Your task to perform on an android device: toggle wifi Image 0: 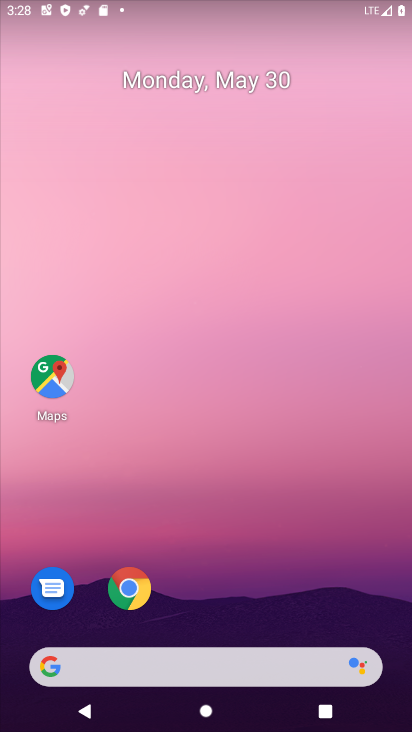
Step 0: drag from (243, 487) to (228, 9)
Your task to perform on an android device: toggle wifi Image 1: 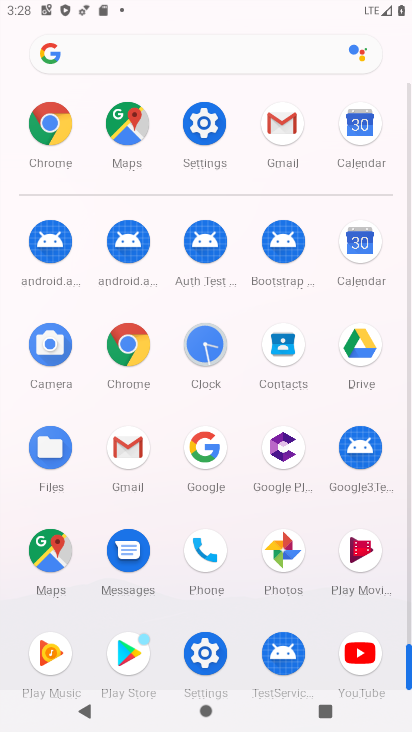
Step 1: drag from (12, 548) to (10, 226)
Your task to perform on an android device: toggle wifi Image 2: 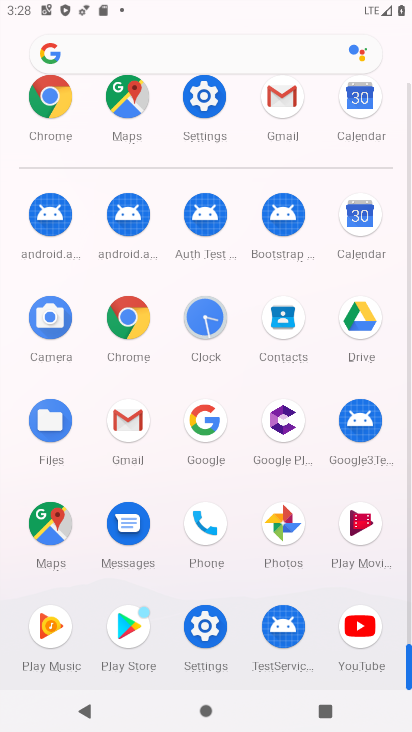
Step 2: click (205, 625)
Your task to perform on an android device: toggle wifi Image 3: 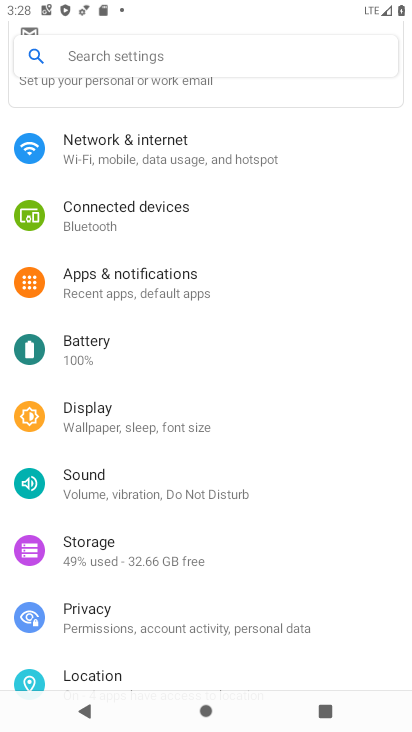
Step 3: drag from (295, 137) to (298, 462)
Your task to perform on an android device: toggle wifi Image 4: 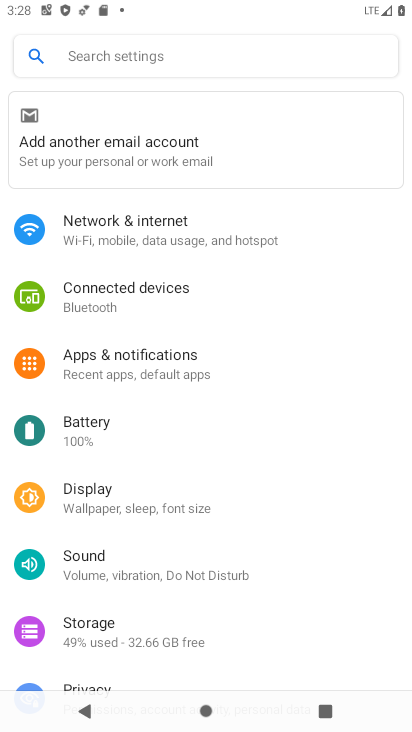
Step 4: click (173, 230)
Your task to perform on an android device: toggle wifi Image 5: 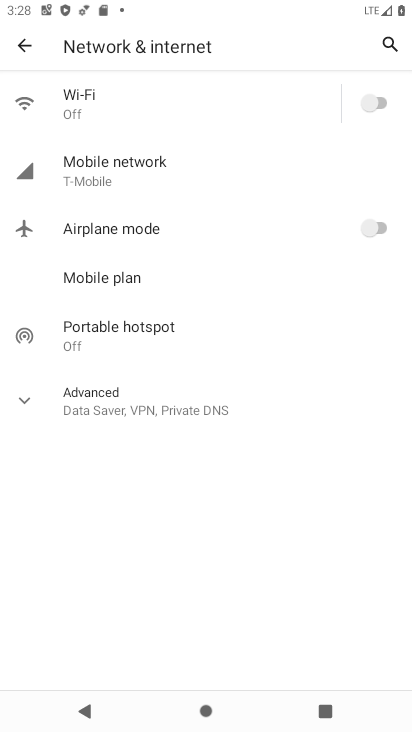
Step 5: click (369, 107)
Your task to perform on an android device: toggle wifi Image 6: 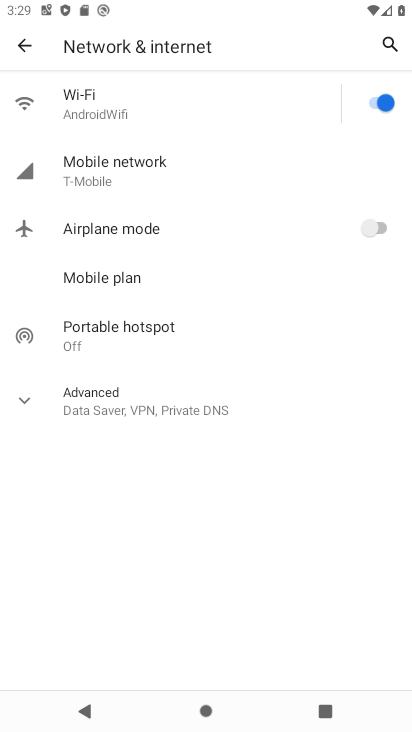
Step 6: click (23, 384)
Your task to perform on an android device: toggle wifi Image 7: 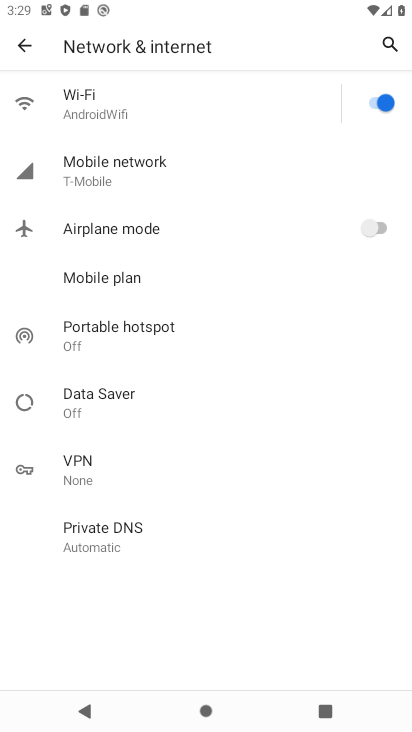
Step 7: task complete